Your task to perform on an android device: turn on the 24-hour format for clock Image 0: 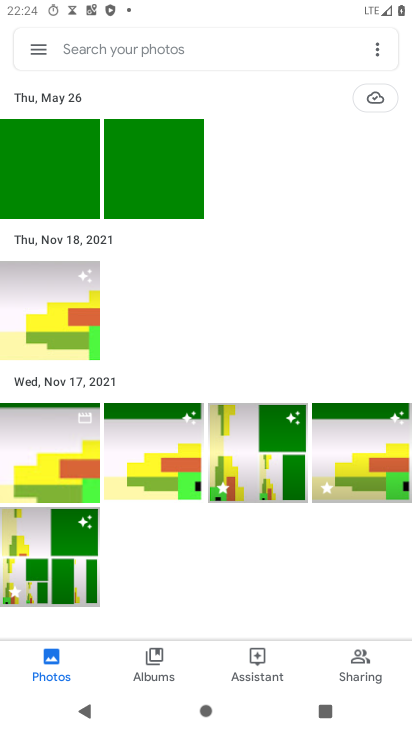
Step 0: press home button
Your task to perform on an android device: turn on the 24-hour format for clock Image 1: 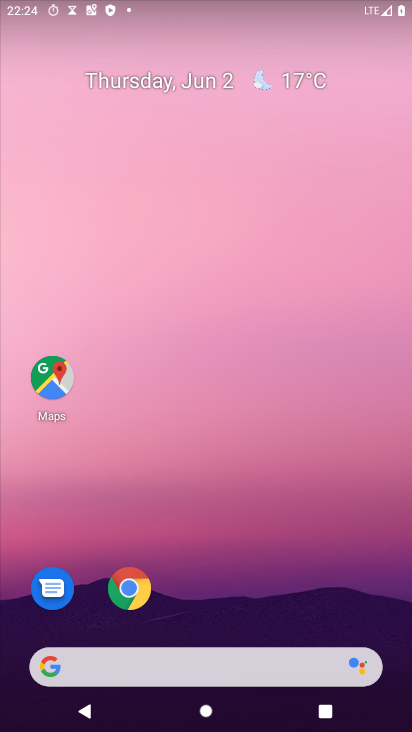
Step 1: drag from (227, 588) to (265, 152)
Your task to perform on an android device: turn on the 24-hour format for clock Image 2: 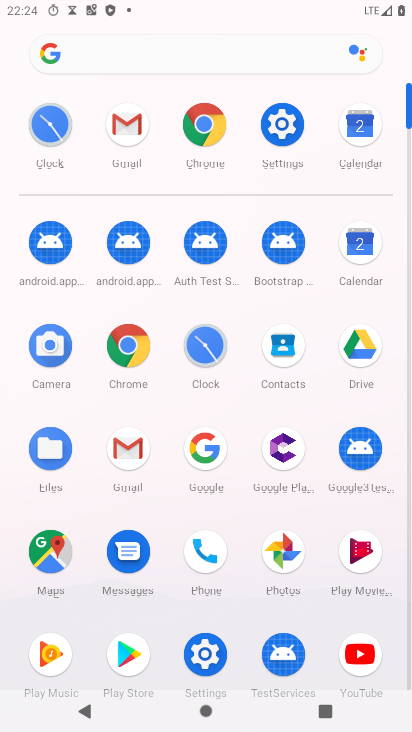
Step 2: click (197, 348)
Your task to perform on an android device: turn on the 24-hour format for clock Image 3: 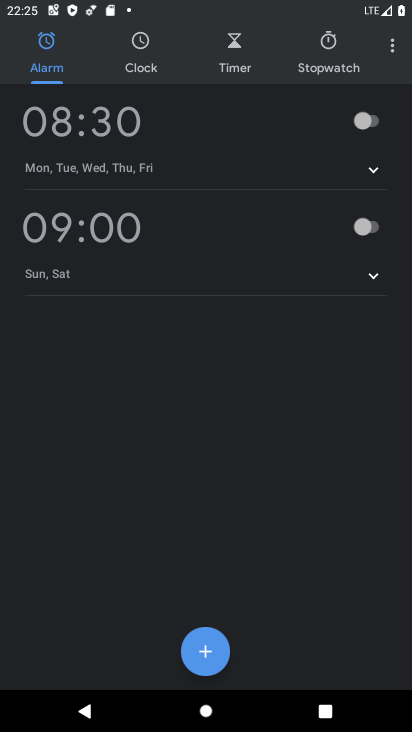
Step 3: click (388, 49)
Your task to perform on an android device: turn on the 24-hour format for clock Image 4: 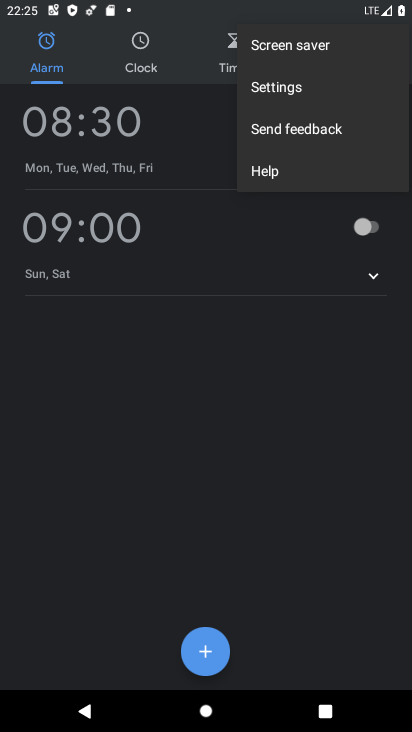
Step 4: click (316, 90)
Your task to perform on an android device: turn on the 24-hour format for clock Image 5: 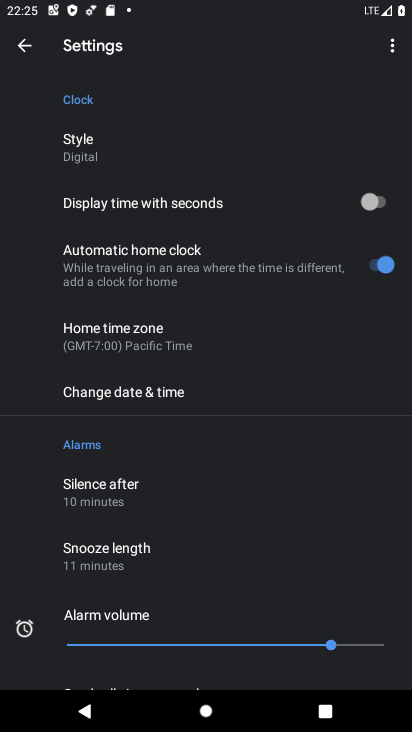
Step 5: click (125, 387)
Your task to perform on an android device: turn on the 24-hour format for clock Image 6: 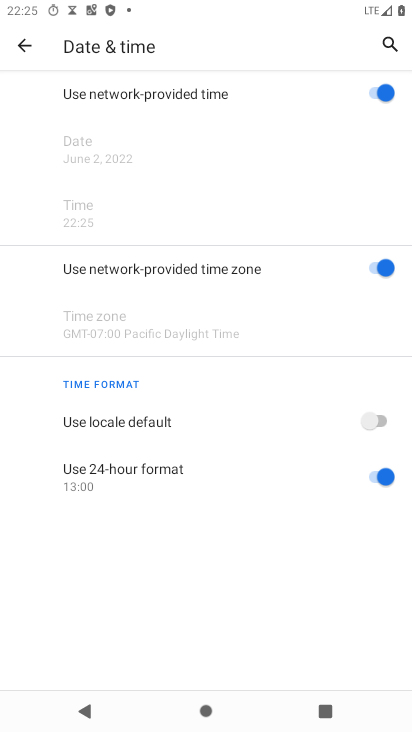
Step 6: task complete